Your task to perform on an android device: set an alarm Image 0: 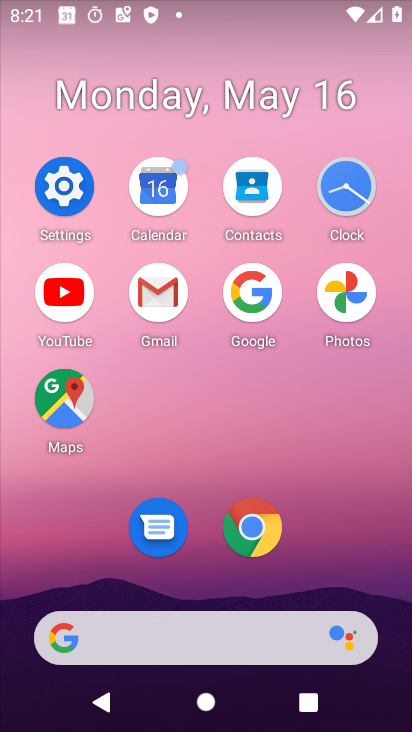
Step 0: click (349, 179)
Your task to perform on an android device: set an alarm Image 1: 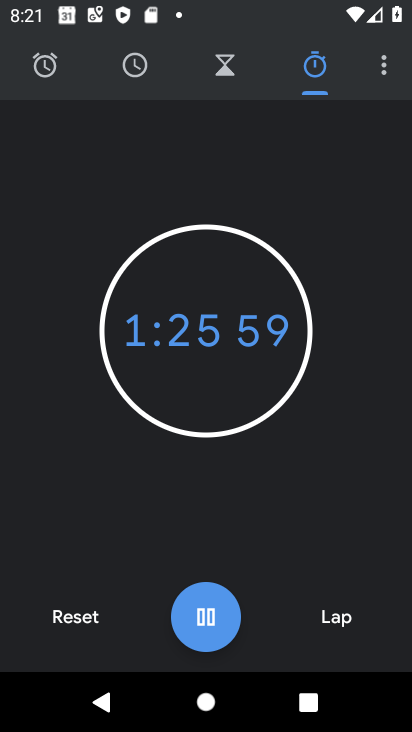
Step 1: click (29, 61)
Your task to perform on an android device: set an alarm Image 2: 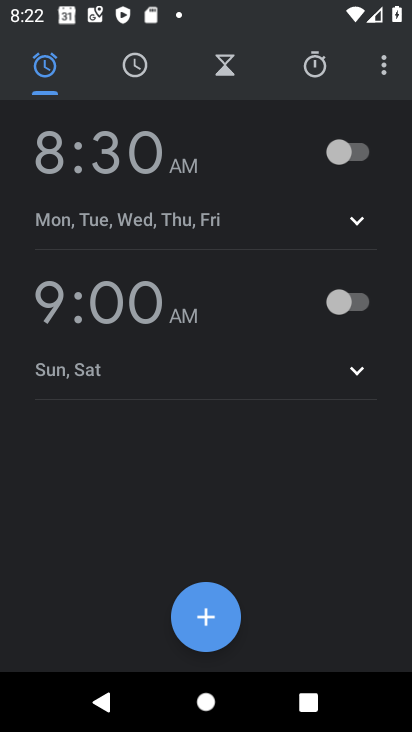
Step 2: click (330, 163)
Your task to perform on an android device: set an alarm Image 3: 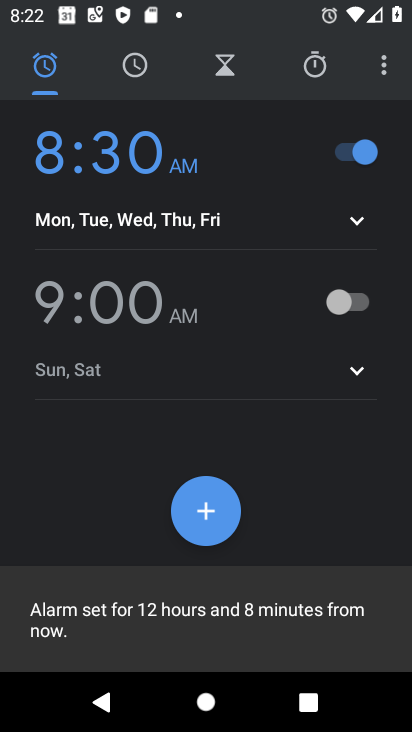
Step 3: task complete